Your task to perform on an android device: find photos in the google photos app Image 0: 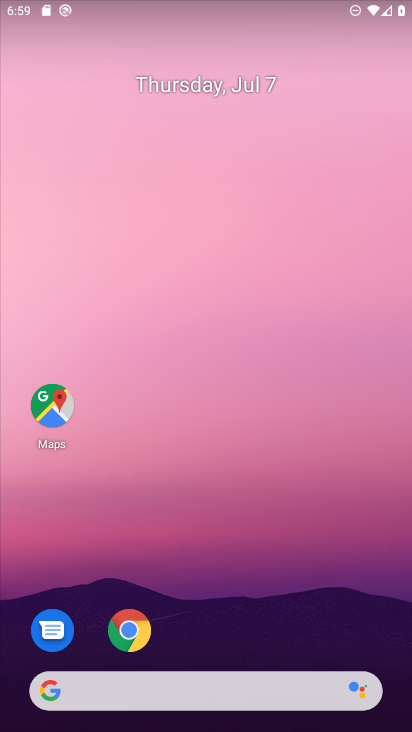
Step 0: drag from (215, 538) to (162, 40)
Your task to perform on an android device: find photos in the google photos app Image 1: 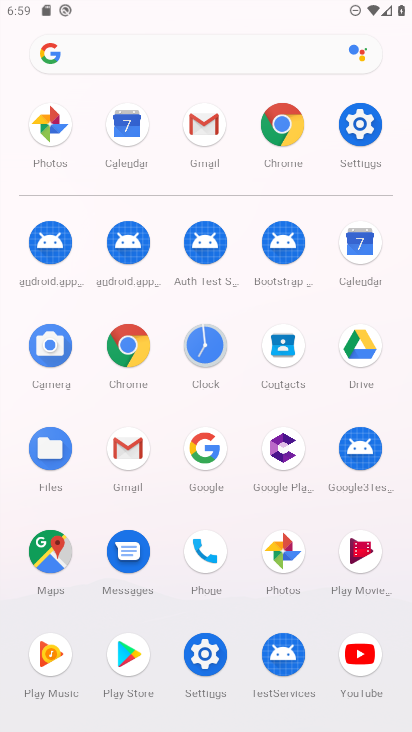
Step 1: click (51, 126)
Your task to perform on an android device: find photos in the google photos app Image 2: 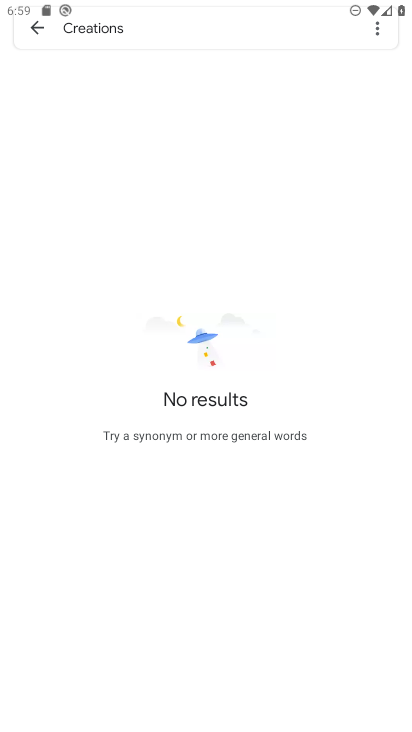
Step 2: click (38, 26)
Your task to perform on an android device: find photos in the google photos app Image 3: 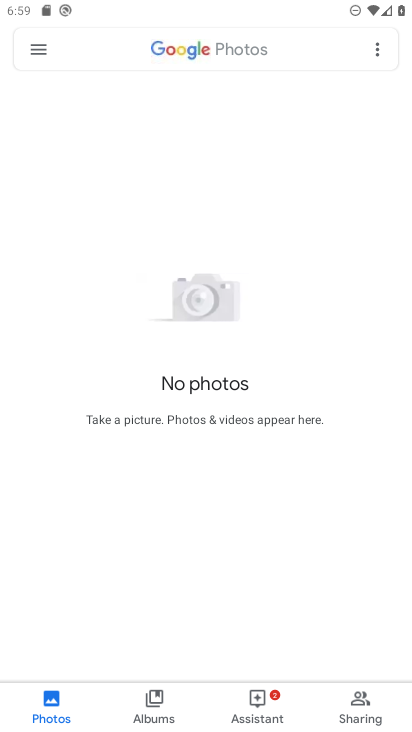
Step 3: click (132, 48)
Your task to perform on an android device: find photos in the google photos app Image 4: 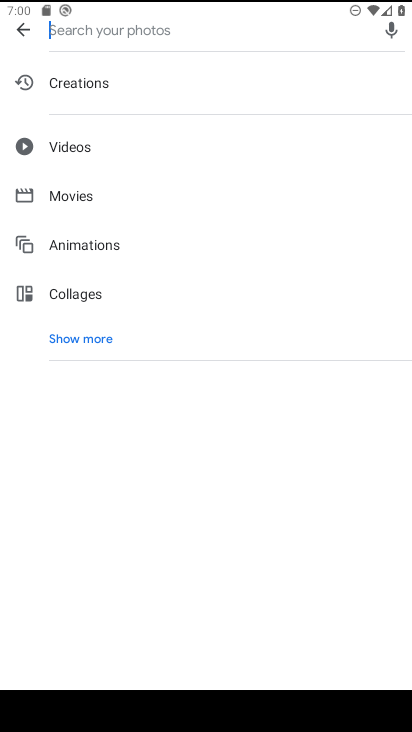
Step 4: task complete